Your task to perform on an android device: Open calendar and show me the third week of next month Image 0: 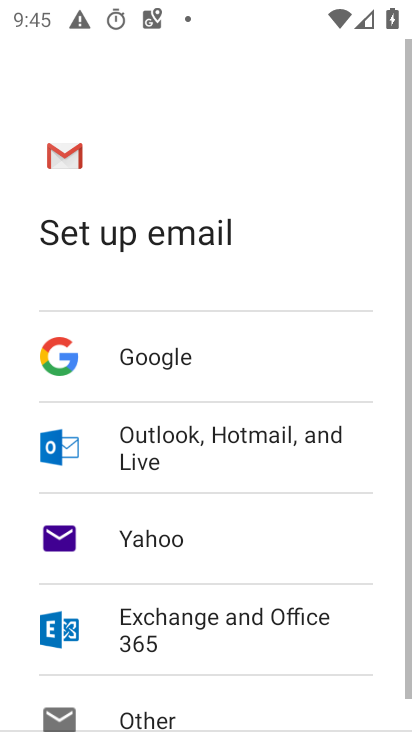
Step 0: press home button
Your task to perform on an android device: Open calendar and show me the third week of next month Image 1: 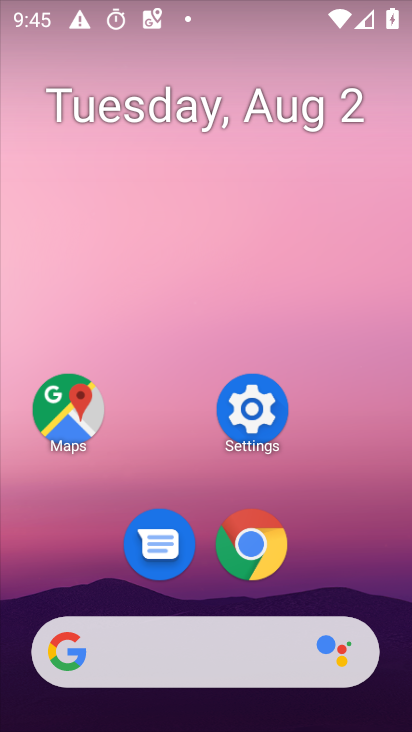
Step 1: drag from (195, 645) to (345, 72)
Your task to perform on an android device: Open calendar and show me the third week of next month Image 2: 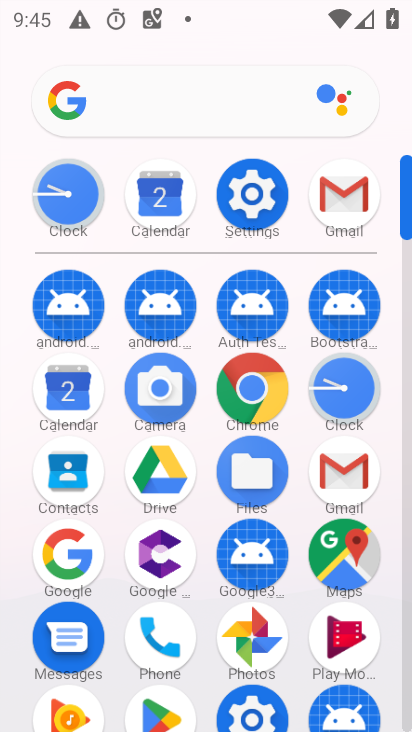
Step 2: click (71, 403)
Your task to perform on an android device: Open calendar and show me the third week of next month Image 3: 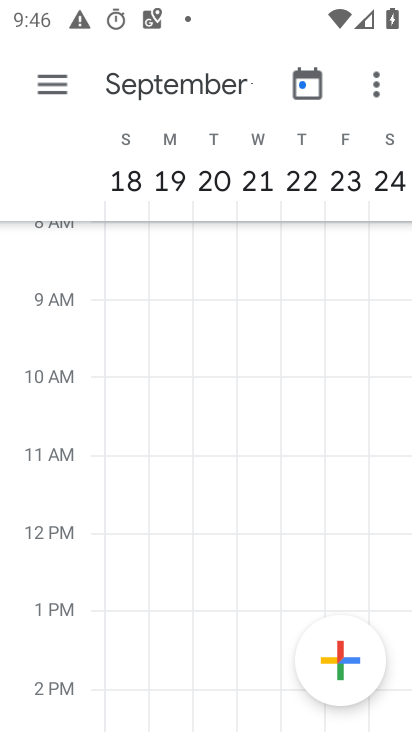
Step 3: click (174, 90)
Your task to perform on an android device: Open calendar and show me the third week of next month Image 4: 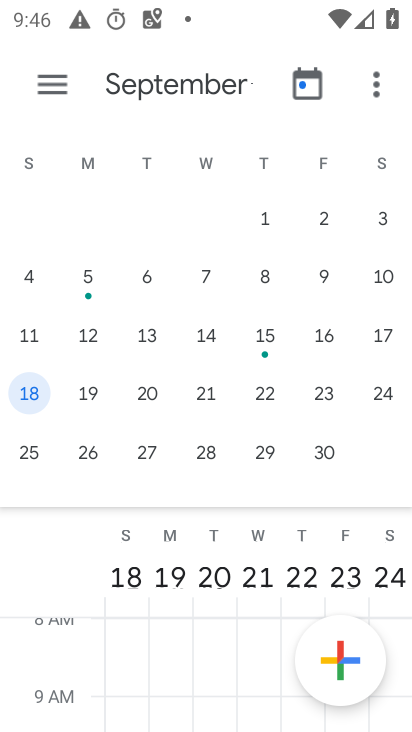
Step 4: click (33, 333)
Your task to perform on an android device: Open calendar and show me the third week of next month Image 5: 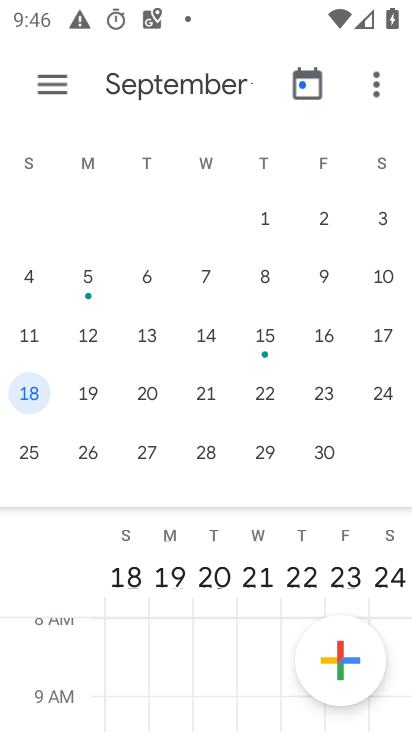
Step 5: click (43, 341)
Your task to perform on an android device: Open calendar and show me the third week of next month Image 6: 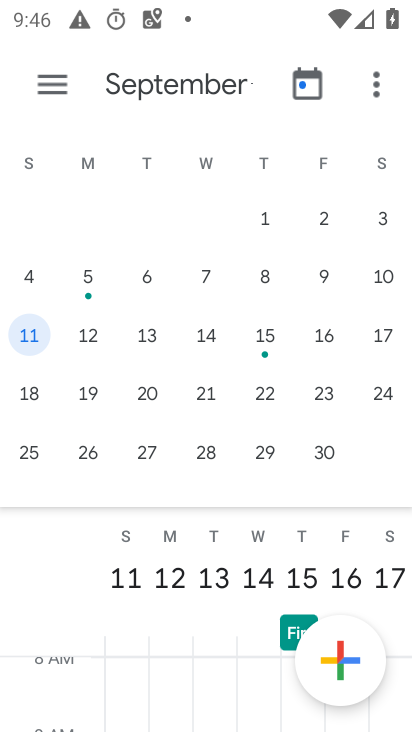
Step 6: task complete